Your task to perform on an android device: Show me productivity apps on the Play Store Image 0: 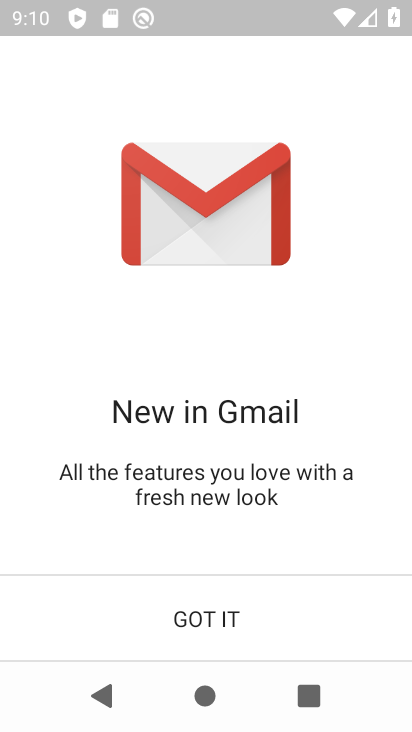
Step 0: press home button
Your task to perform on an android device: Show me productivity apps on the Play Store Image 1: 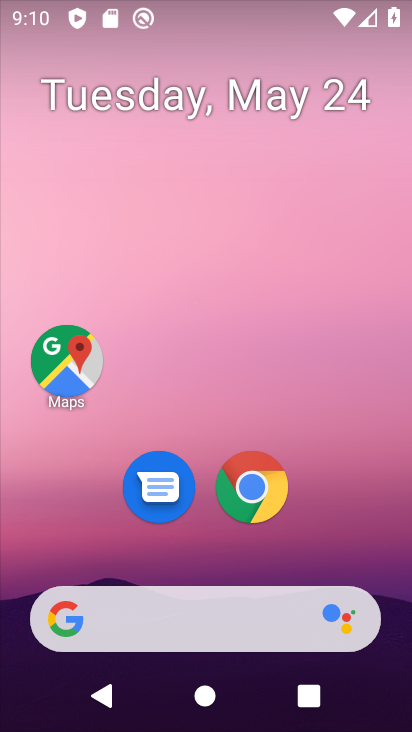
Step 1: drag from (343, 568) to (342, 37)
Your task to perform on an android device: Show me productivity apps on the Play Store Image 2: 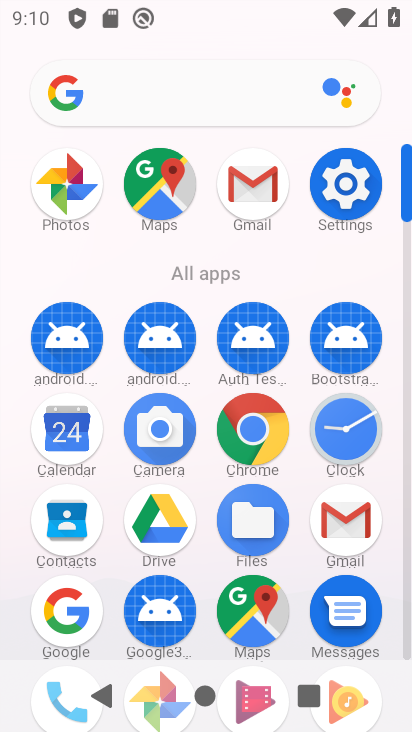
Step 2: click (405, 517)
Your task to perform on an android device: Show me productivity apps on the Play Store Image 3: 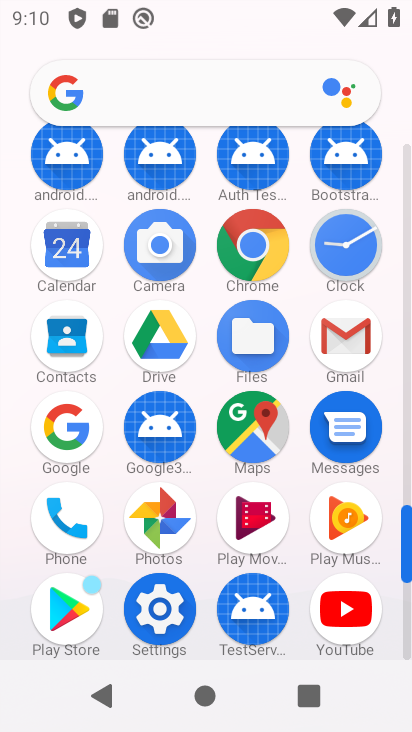
Step 3: click (43, 608)
Your task to perform on an android device: Show me productivity apps on the Play Store Image 4: 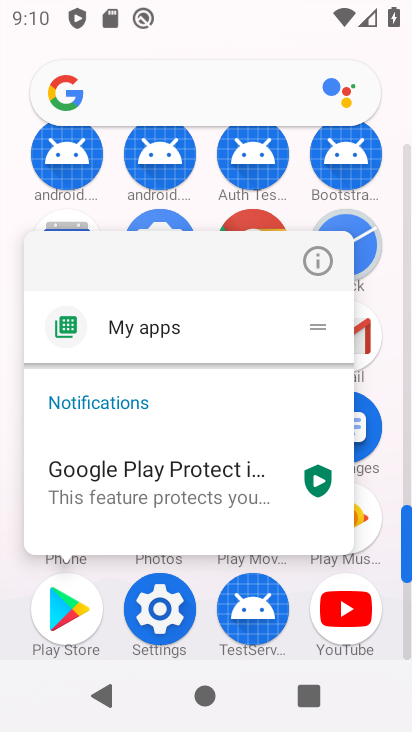
Step 4: click (51, 616)
Your task to perform on an android device: Show me productivity apps on the Play Store Image 5: 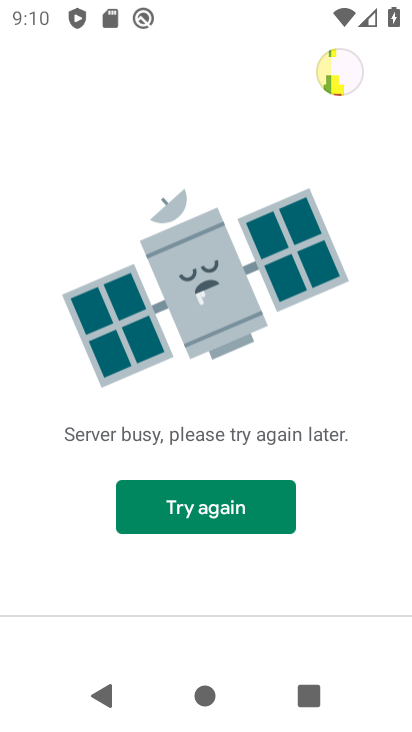
Step 5: click (214, 499)
Your task to perform on an android device: Show me productivity apps on the Play Store Image 6: 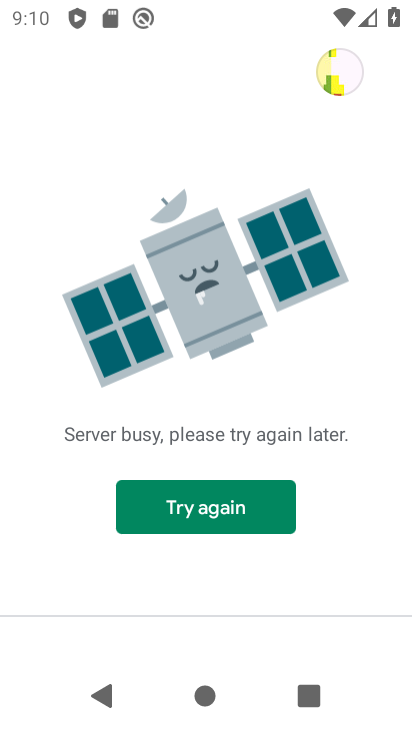
Step 6: task complete